Your task to perform on an android device: turn on bluetooth scan Image 0: 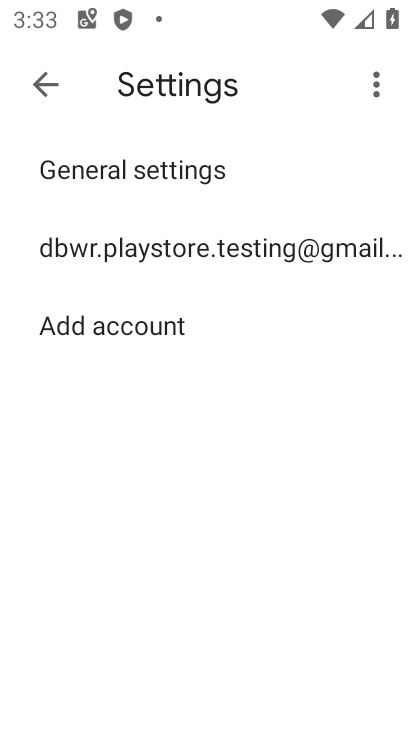
Step 0: press home button
Your task to perform on an android device: turn on bluetooth scan Image 1: 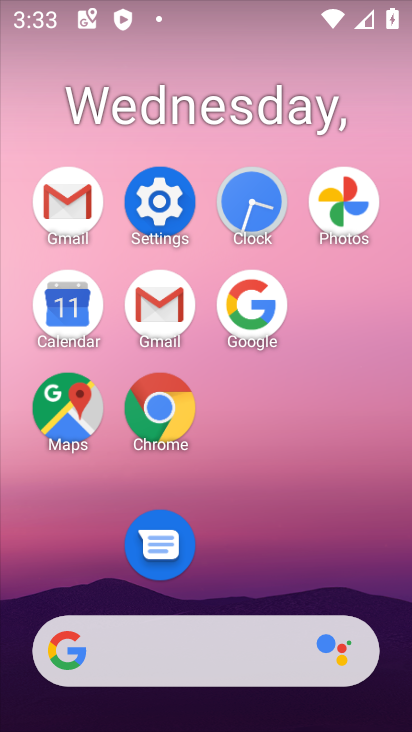
Step 1: click (133, 199)
Your task to perform on an android device: turn on bluetooth scan Image 2: 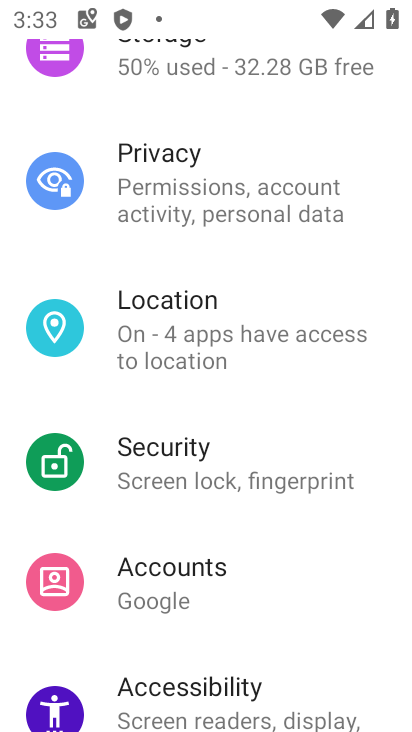
Step 2: click (236, 333)
Your task to perform on an android device: turn on bluetooth scan Image 3: 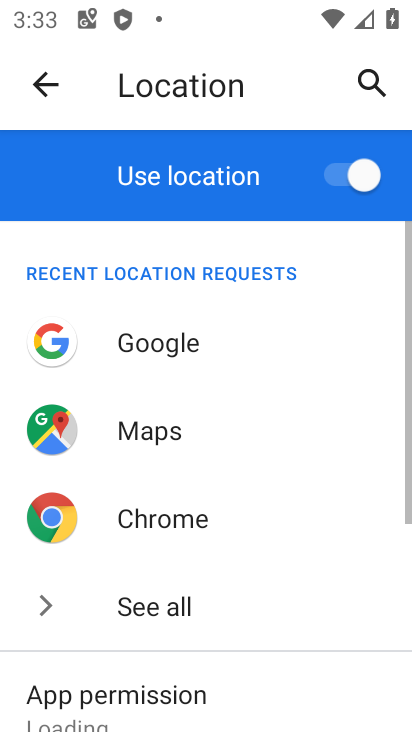
Step 3: drag from (262, 645) to (261, 214)
Your task to perform on an android device: turn on bluetooth scan Image 4: 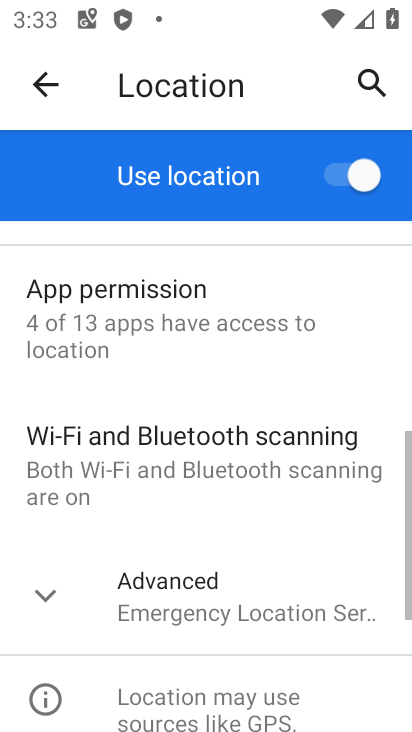
Step 4: click (275, 403)
Your task to perform on an android device: turn on bluetooth scan Image 5: 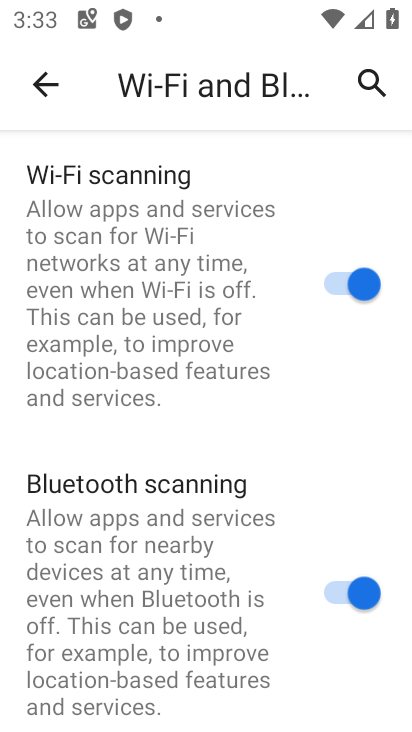
Step 5: task complete